Your task to perform on an android device: turn off data saver in the chrome app Image 0: 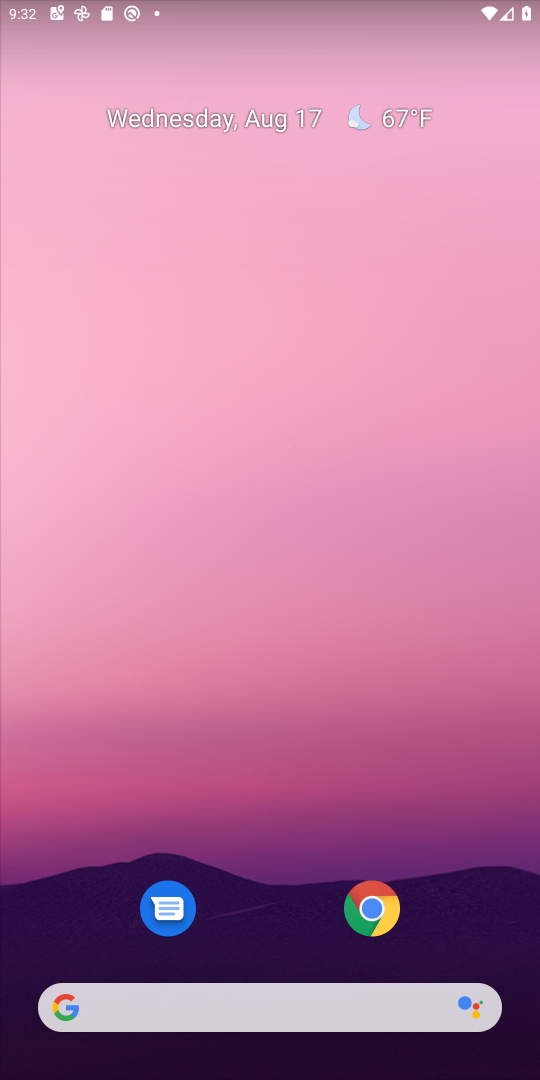
Step 0: drag from (279, 929) to (271, 204)
Your task to perform on an android device: turn off data saver in the chrome app Image 1: 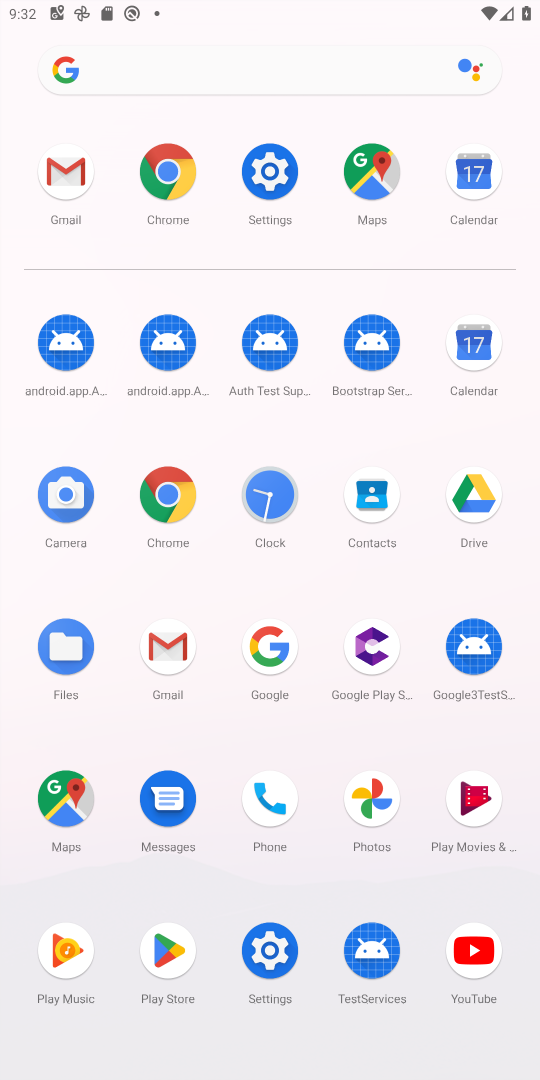
Step 1: click (168, 491)
Your task to perform on an android device: turn off data saver in the chrome app Image 2: 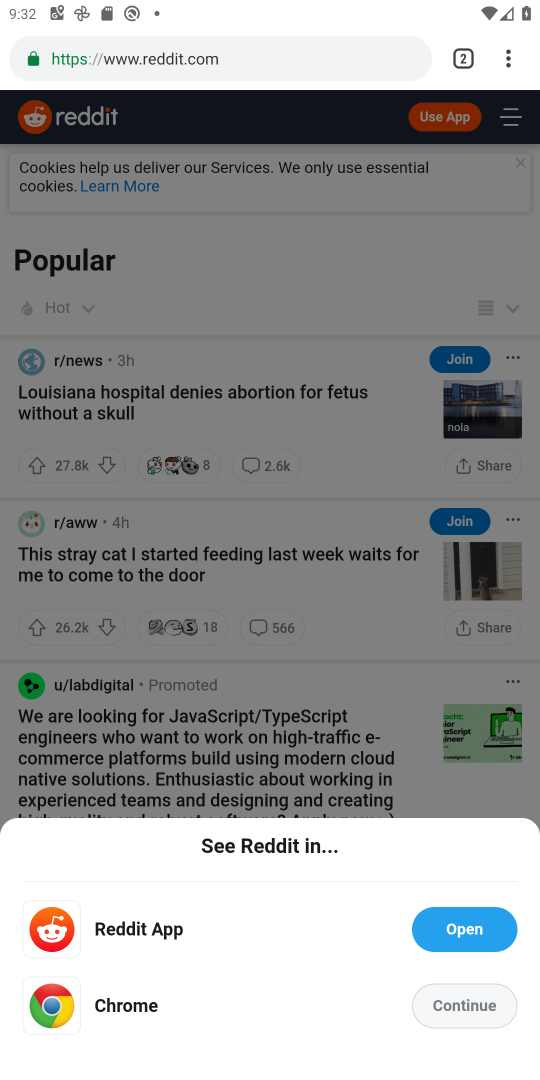
Step 2: drag from (501, 48) to (292, 705)
Your task to perform on an android device: turn off data saver in the chrome app Image 3: 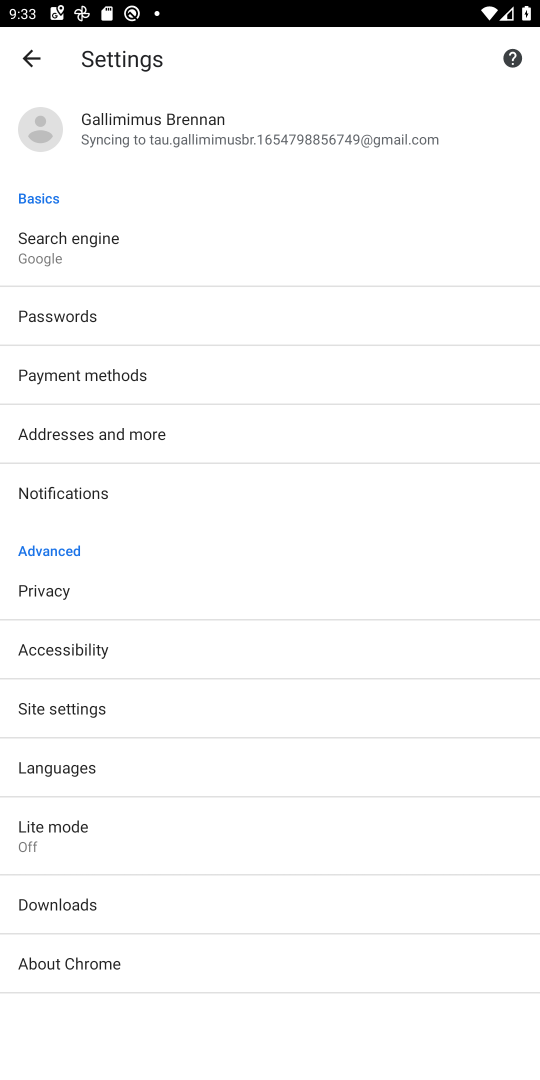
Step 3: click (93, 822)
Your task to perform on an android device: turn off data saver in the chrome app Image 4: 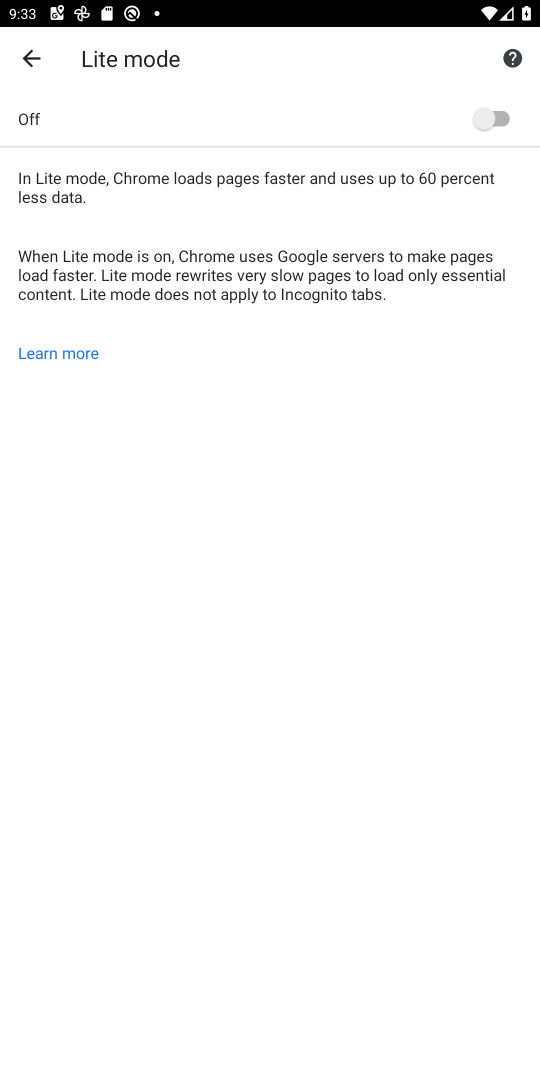
Step 4: task complete